Your task to perform on an android device: Go to CNN.com Image 0: 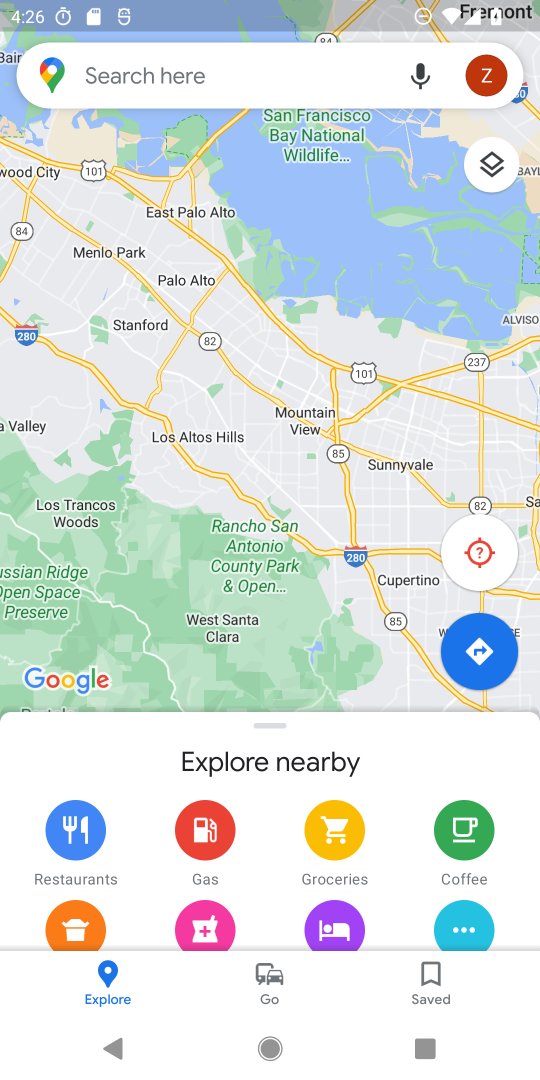
Step 0: press home button
Your task to perform on an android device: Go to CNN.com Image 1: 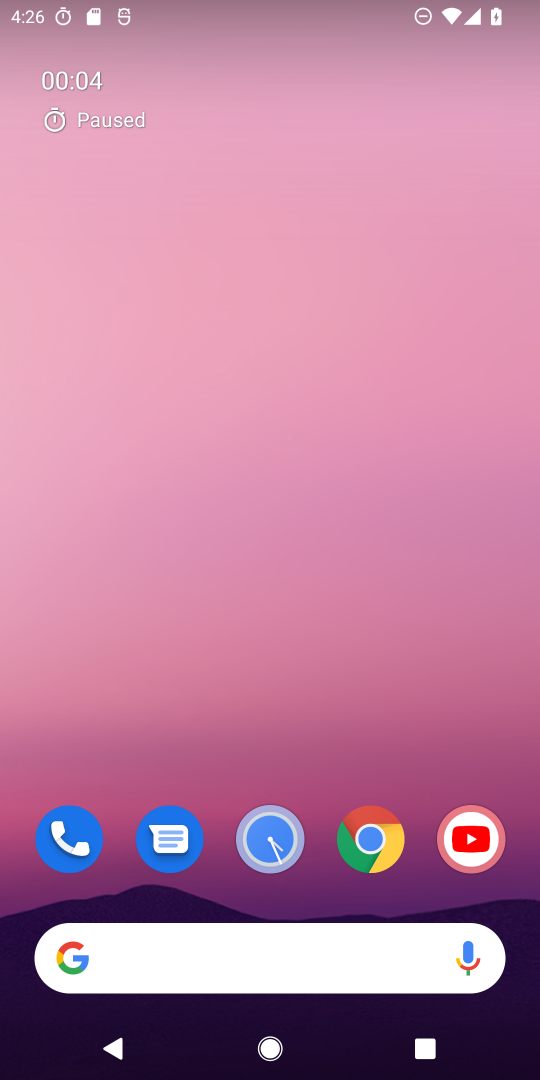
Step 1: click (166, 947)
Your task to perform on an android device: Go to CNN.com Image 2: 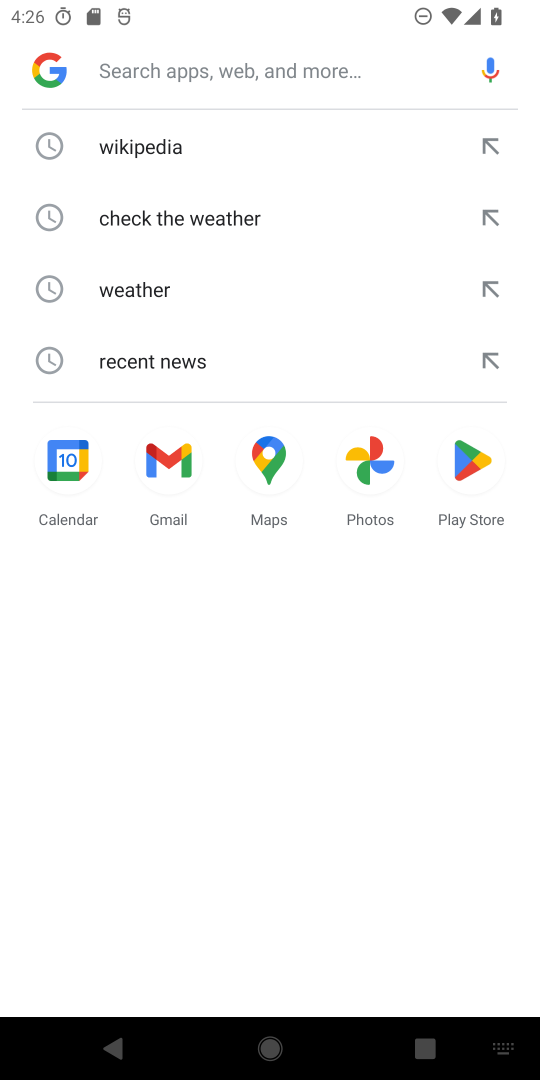
Step 2: type "CNN.com"
Your task to perform on an android device: Go to CNN.com Image 3: 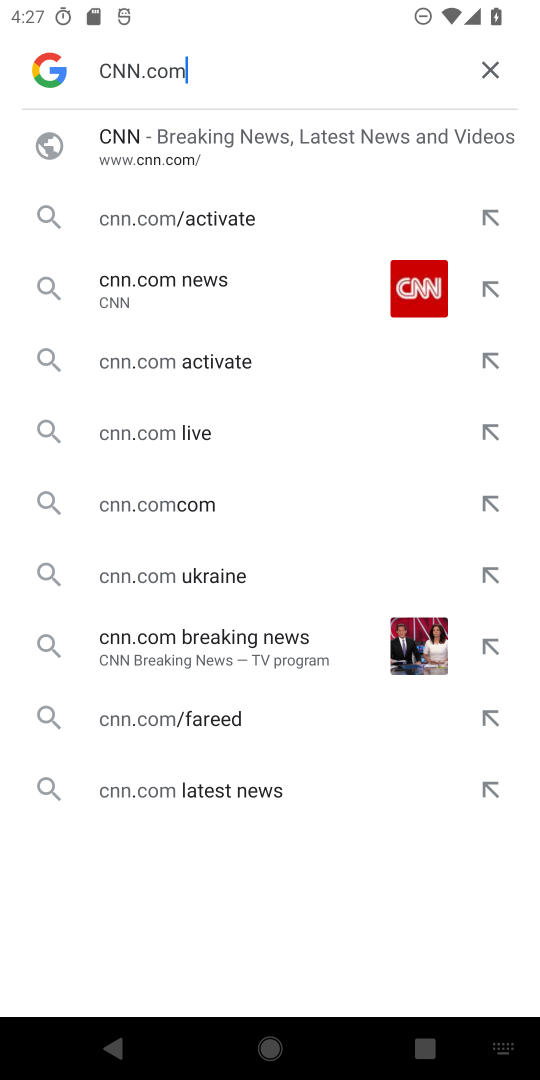
Step 3: click (122, 134)
Your task to perform on an android device: Go to CNN.com Image 4: 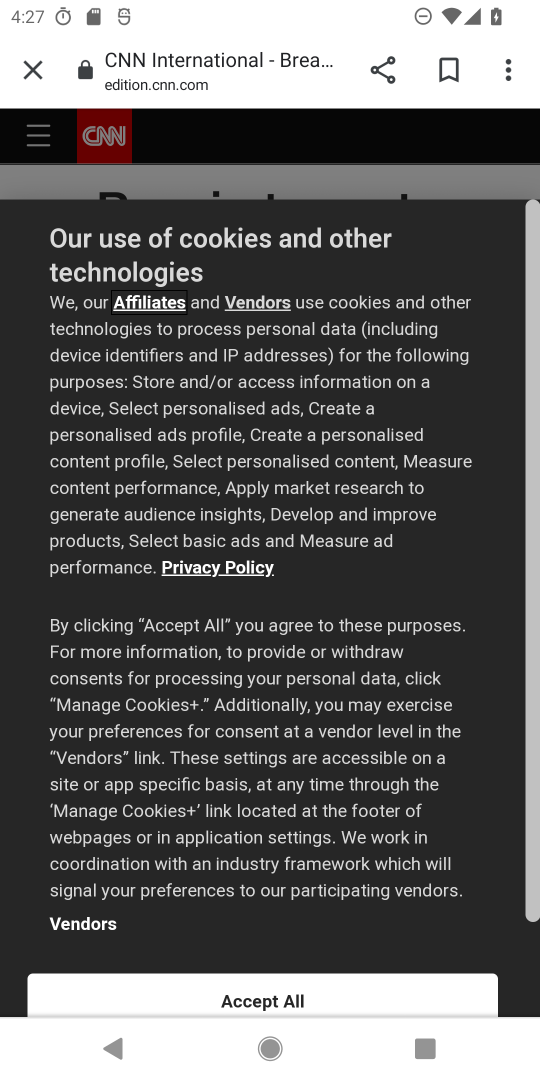
Step 4: task complete